Your task to perform on an android device: set default search engine in the chrome app Image 0: 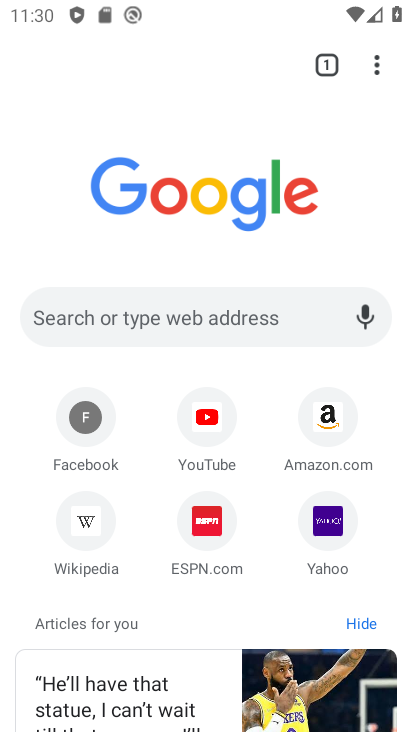
Step 0: click (369, 53)
Your task to perform on an android device: set default search engine in the chrome app Image 1: 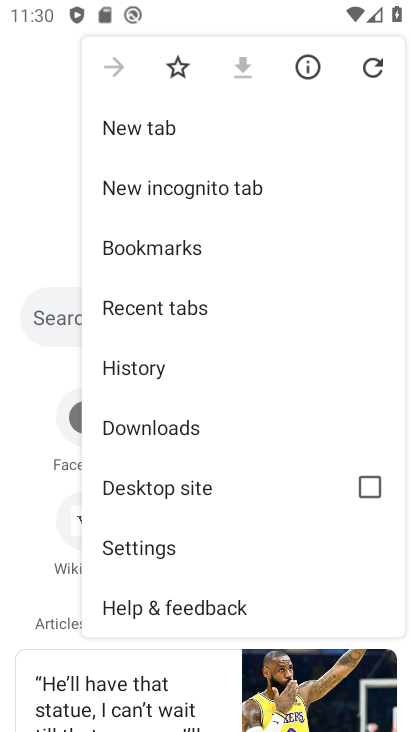
Step 1: click (169, 552)
Your task to perform on an android device: set default search engine in the chrome app Image 2: 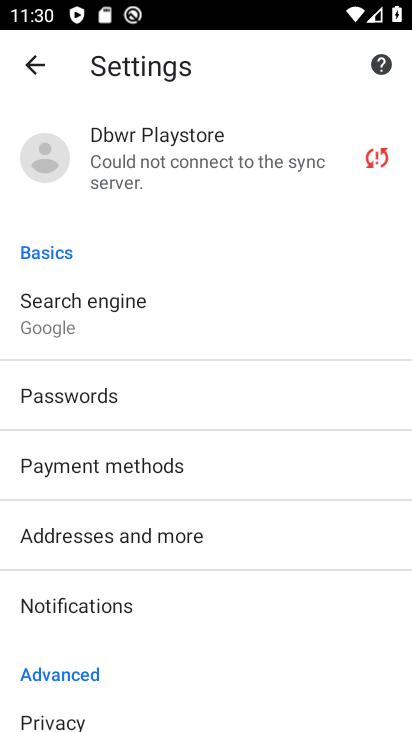
Step 2: click (151, 329)
Your task to perform on an android device: set default search engine in the chrome app Image 3: 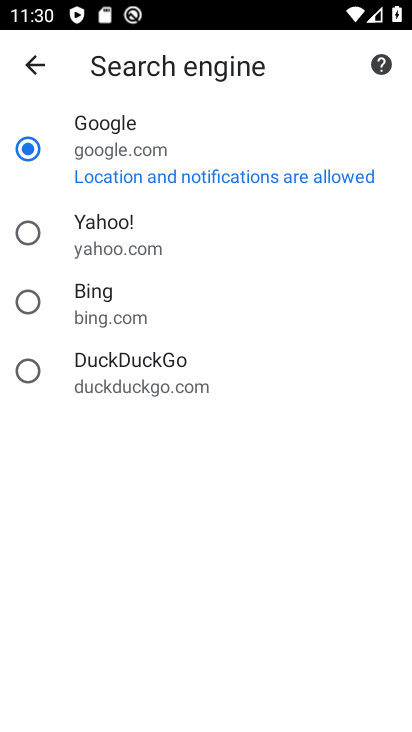
Step 3: click (122, 183)
Your task to perform on an android device: set default search engine in the chrome app Image 4: 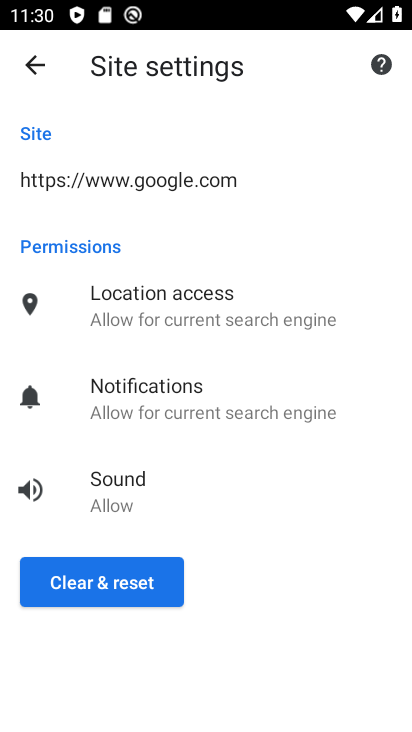
Step 4: click (98, 593)
Your task to perform on an android device: set default search engine in the chrome app Image 5: 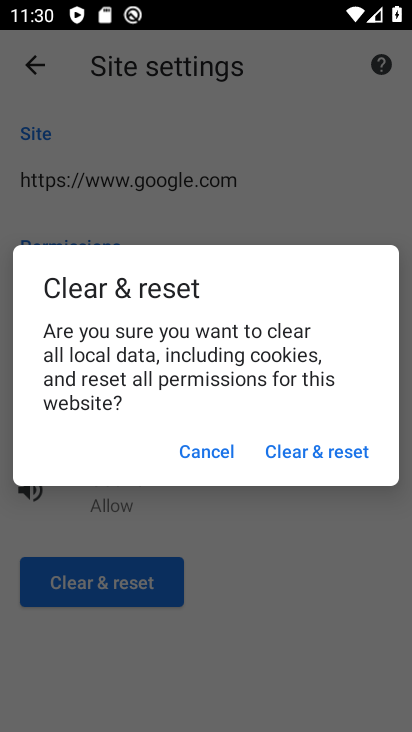
Step 5: click (375, 459)
Your task to perform on an android device: set default search engine in the chrome app Image 6: 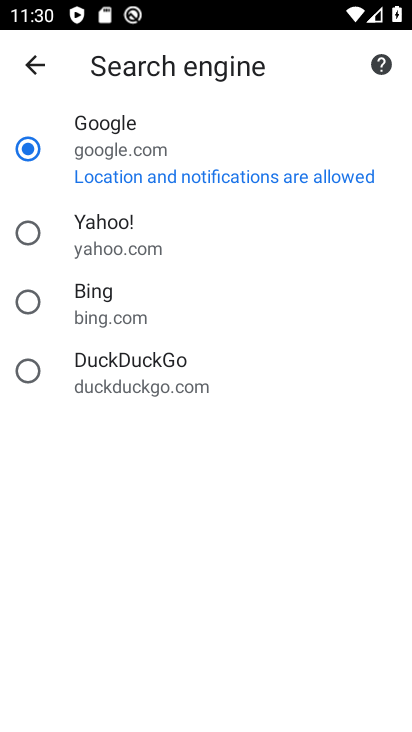
Step 6: task complete